Your task to perform on an android device: What's the weather going to be this weekend? Image 0: 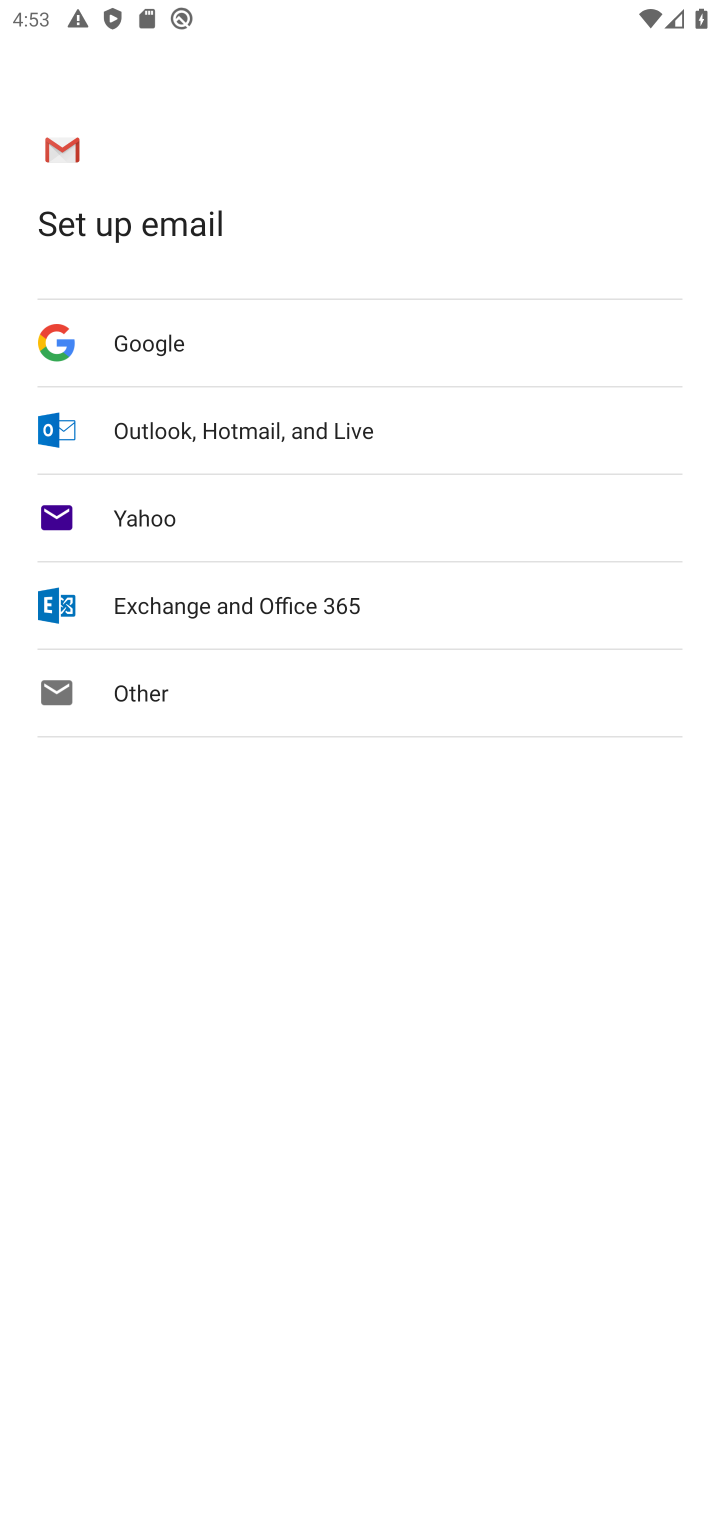
Step 0: press home button
Your task to perform on an android device: What's the weather going to be this weekend? Image 1: 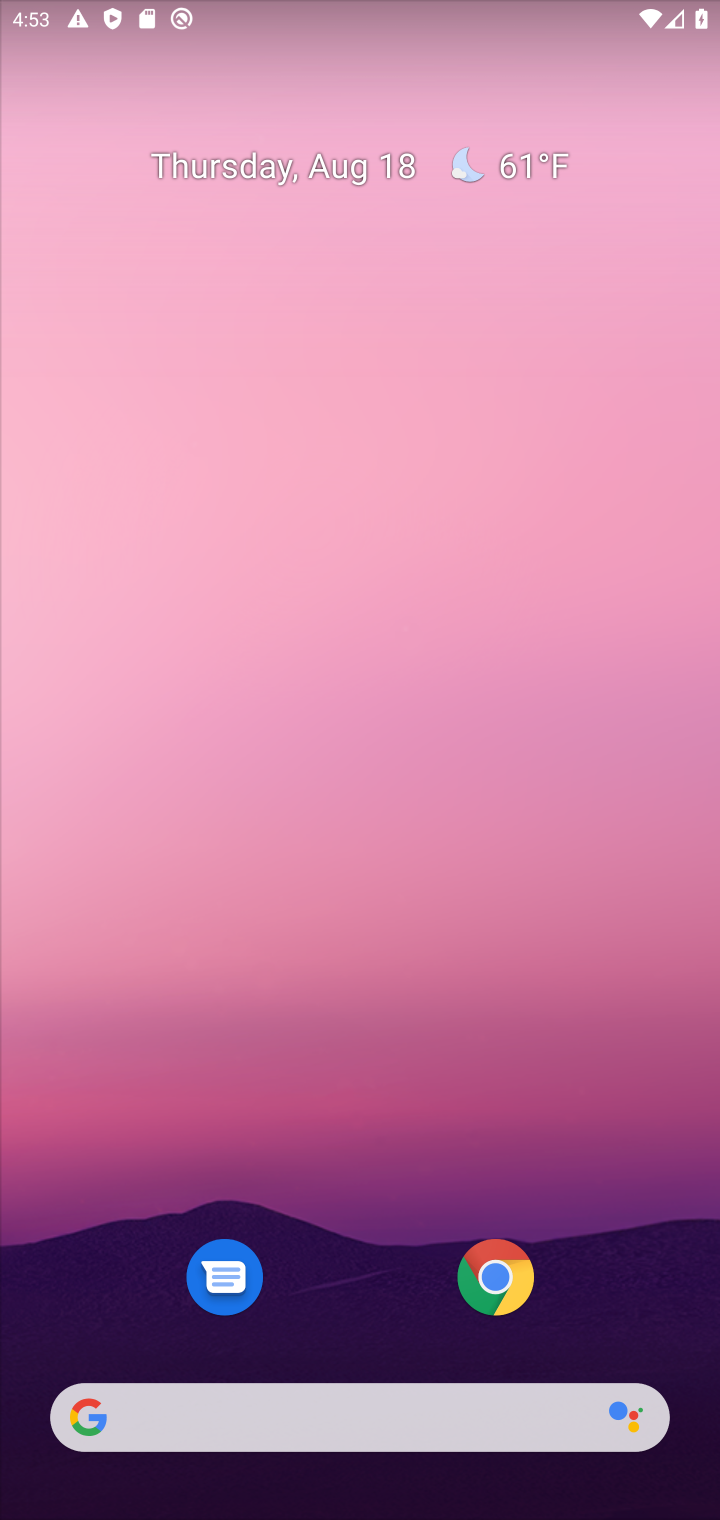
Step 1: click (705, 244)
Your task to perform on an android device: What's the weather going to be this weekend? Image 2: 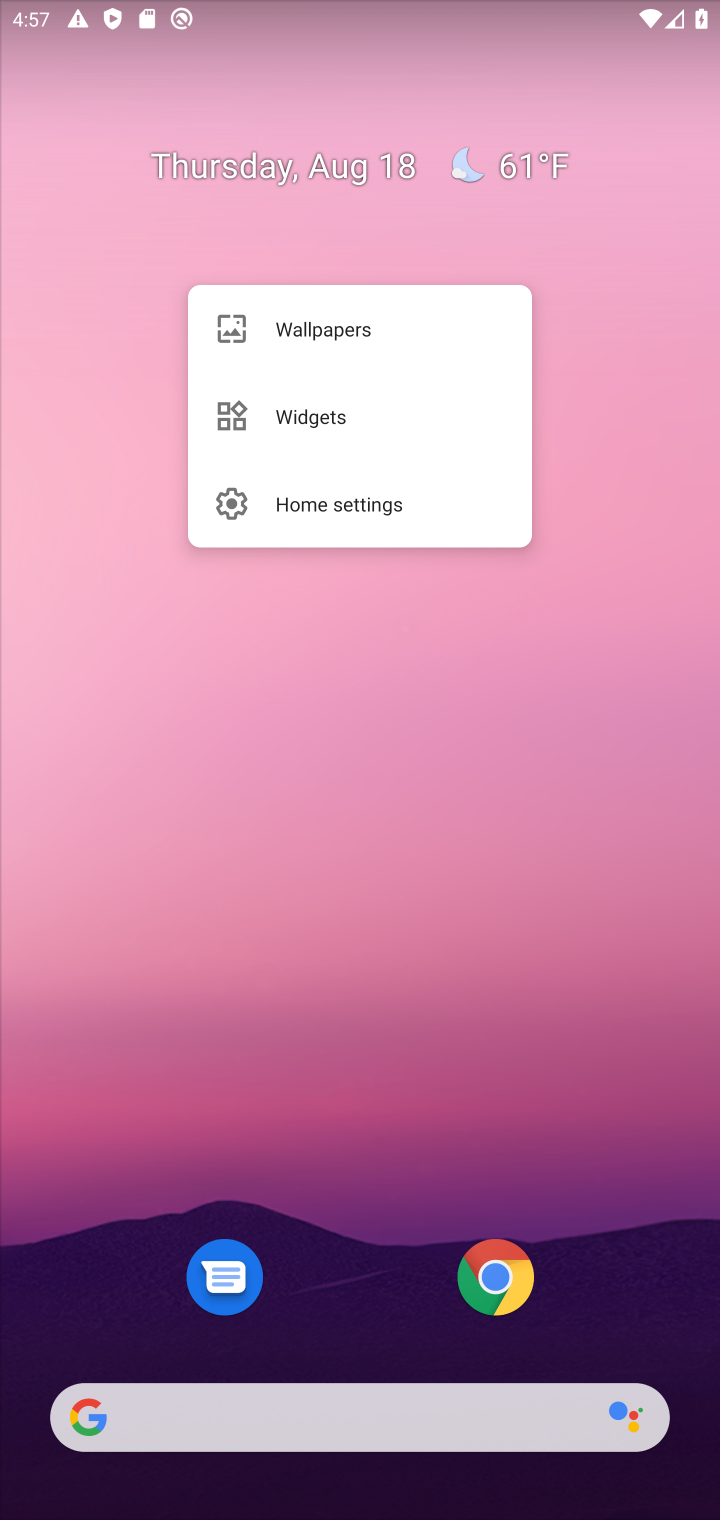
Step 2: task complete